Your task to perform on an android device: See recent photos Image 0: 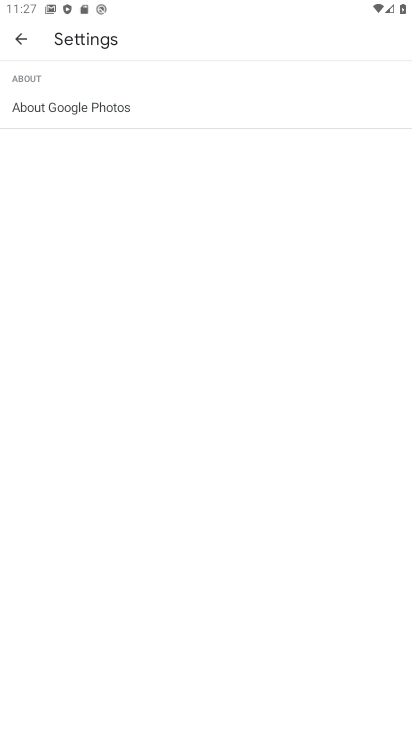
Step 0: press home button
Your task to perform on an android device: See recent photos Image 1: 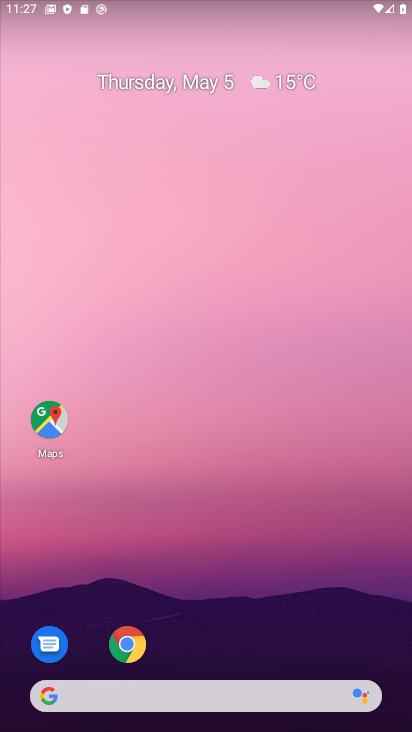
Step 1: drag from (186, 661) to (237, 106)
Your task to perform on an android device: See recent photos Image 2: 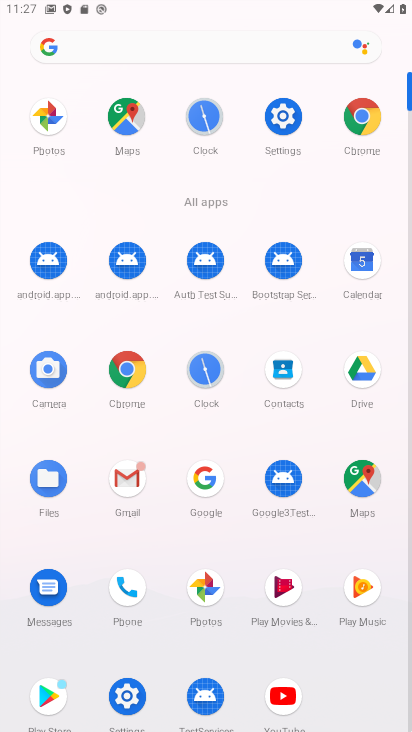
Step 2: click (52, 126)
Your task to perform on an android device: See recent photos Image 3: 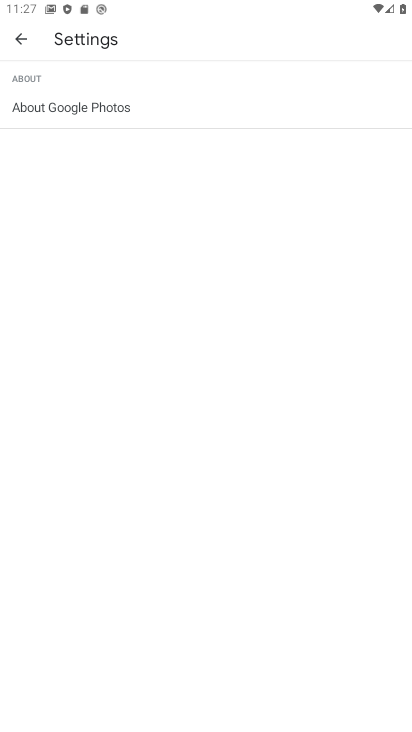
Step 3: click (19, 32)
Your task to perform on an android device: See recent photos Image 4: 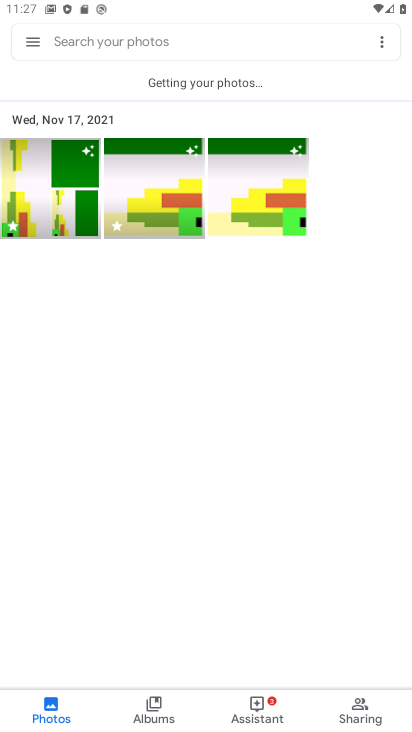
Step 4: task complete